Your task to perform on an android device: Search for sushi restaurants on Maps Image 0: 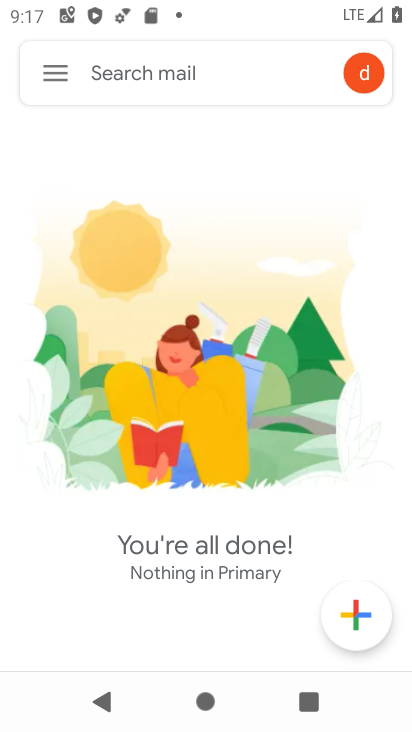
Step 0: press home button
Your task to perform on an android device: Search for sushi restaurants on Maps Image 1: 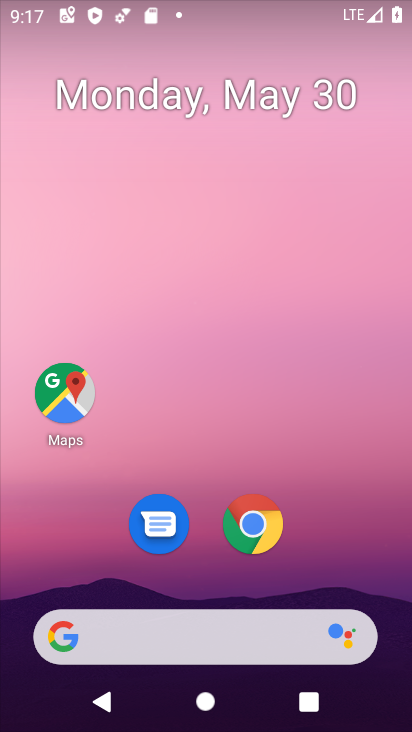
Step 1: click (60, 393)
Your task to perform on an android device: Search for sushi restaurants on Maps Image 2: 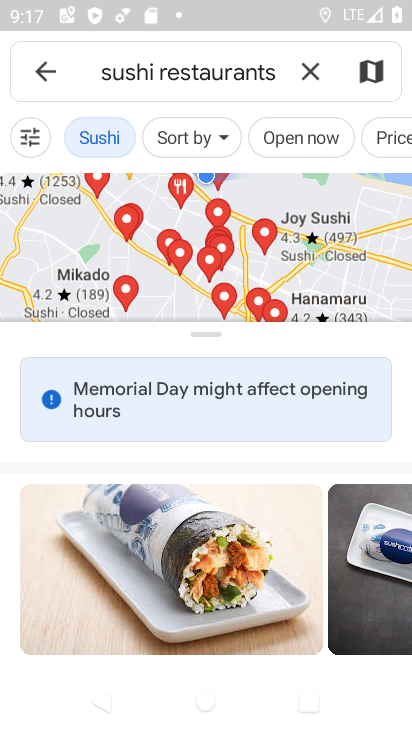
Step 2: task complete